Your task to perform on an android device: find photos in the google photos app Image 0: 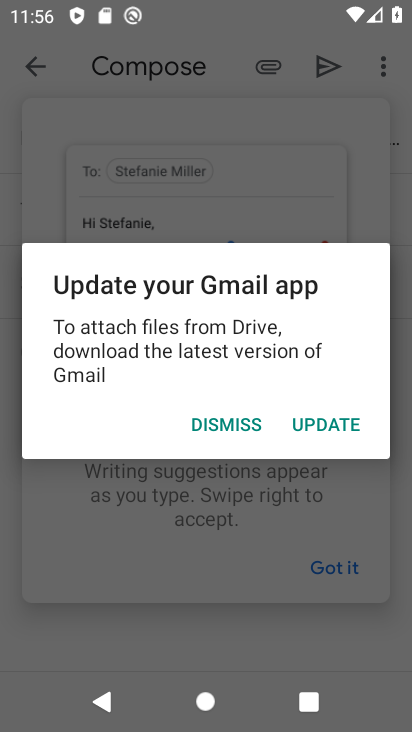
Step 0: press home button
Your task to perform on an android device: find photos in the google photos app Image 1: 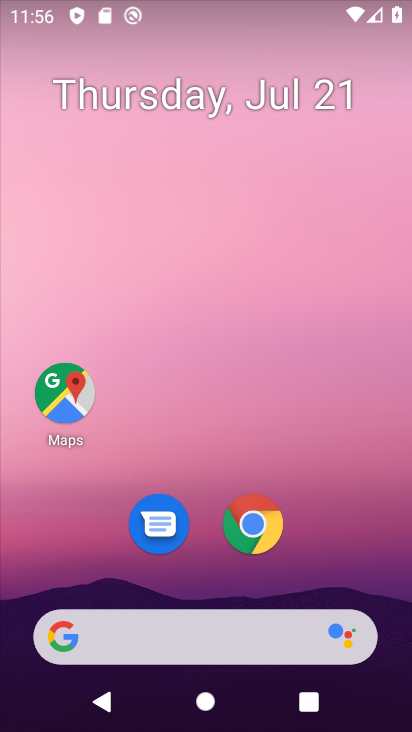
Step 1: drag from (309, 517) to (318, 53)
Your task to perform on an android device: find photos in the google photos app Image 2: 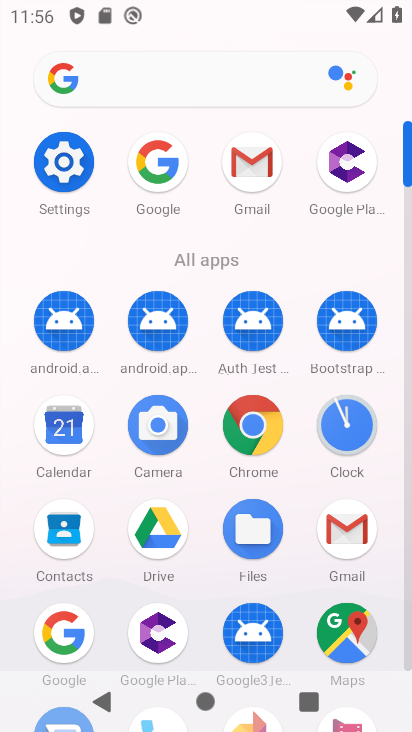
Step 2: drag from (212, 488) to (258, 116)
Your task to perform on an android device: find photos in the google photos app Image 3: 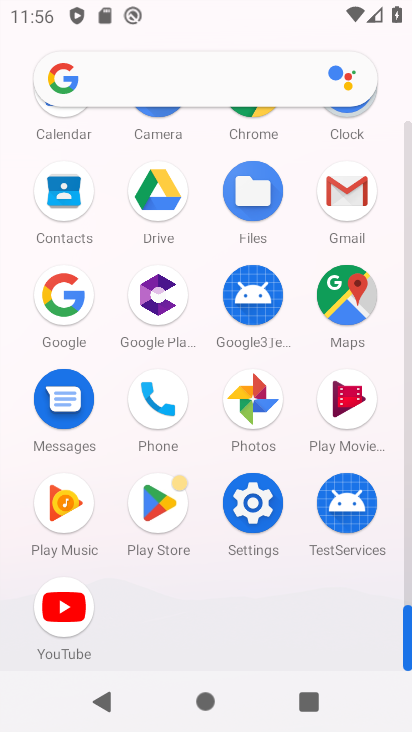
Step 3: click (266, 404)
Your task to perform on an android device: find photos in the google photos app Image 4: 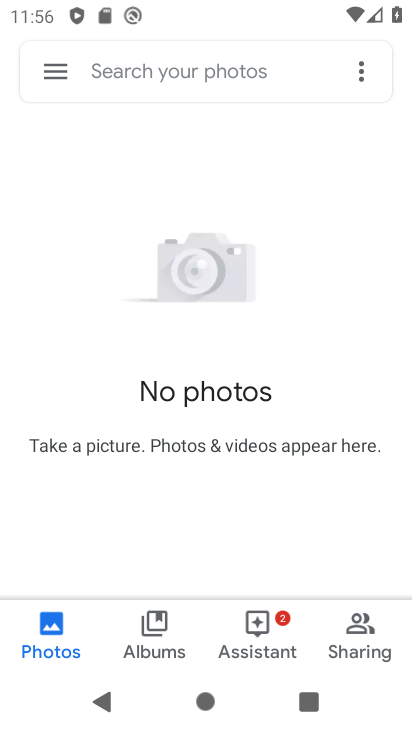
Step 4: task complete